Your task to perform on an android device: Show me recent news Image 0: 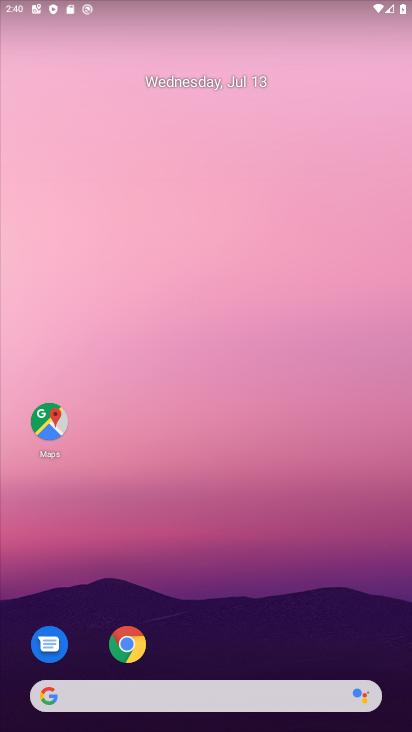
Step 0: drag from (275, 626) to (285, 128)
Your task to perform on an android device: Show me recent news Image 1: 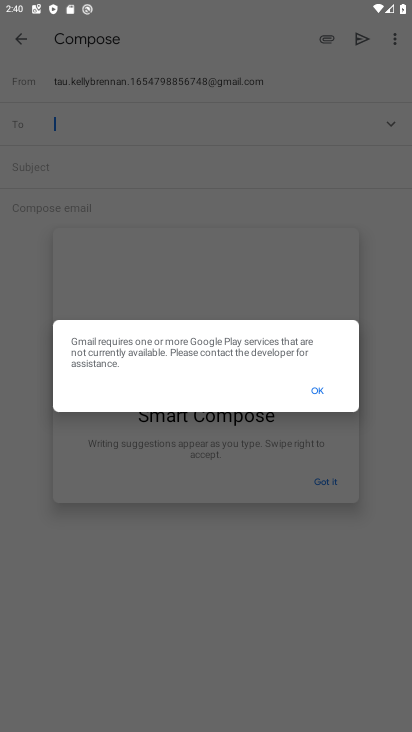
Step 1: click (367, 122)
Your task to perform on an android device: Show me recent news Image 2: 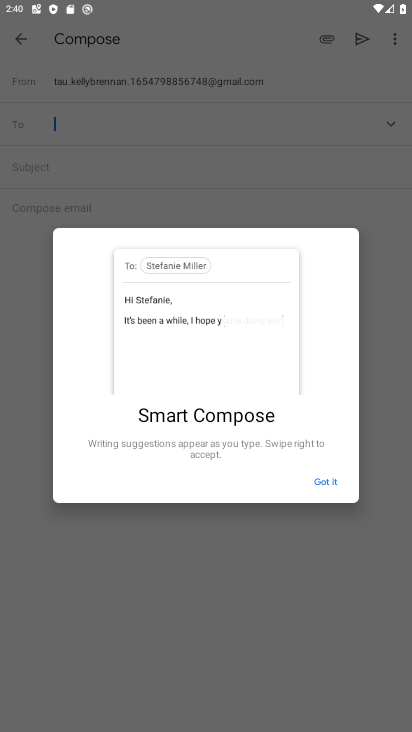
Step 2: press home button
Your task to perform on an android device: Show me recent news Image 3: 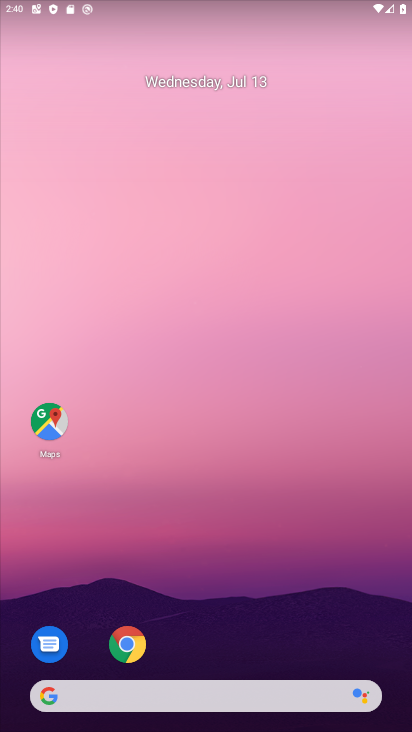
Step 3: drag from (263, 499) to (280, 105)
Your task to perform on an android device: Show me recent news Image 4: 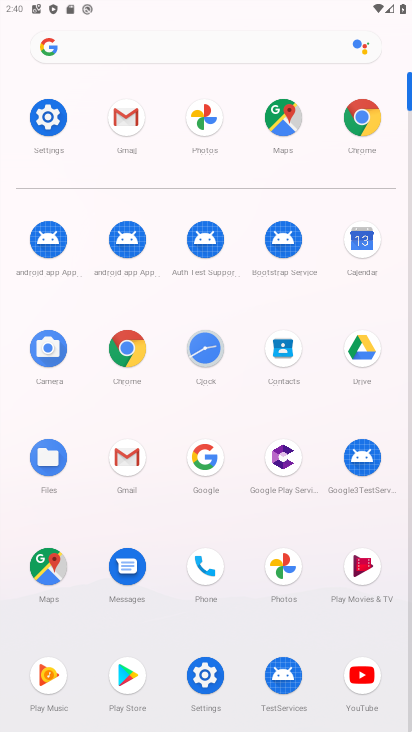
Step 4: click (370, 123)
Your task to perform on an android device: Show me recent news Image 5: 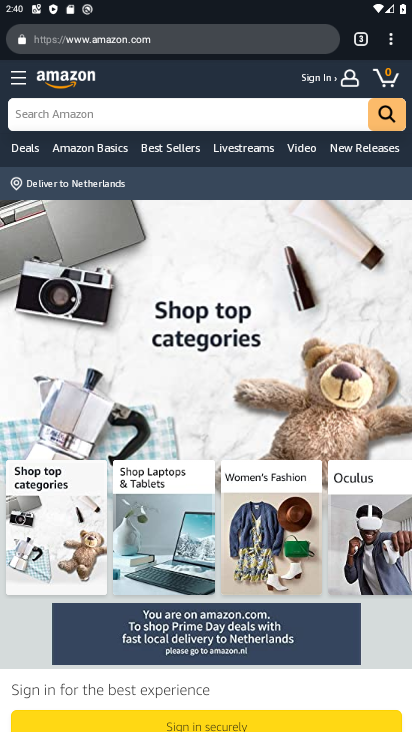
Step 5: click (230, 46)
Your task to perform on an android device: Show me recent news Image 6: 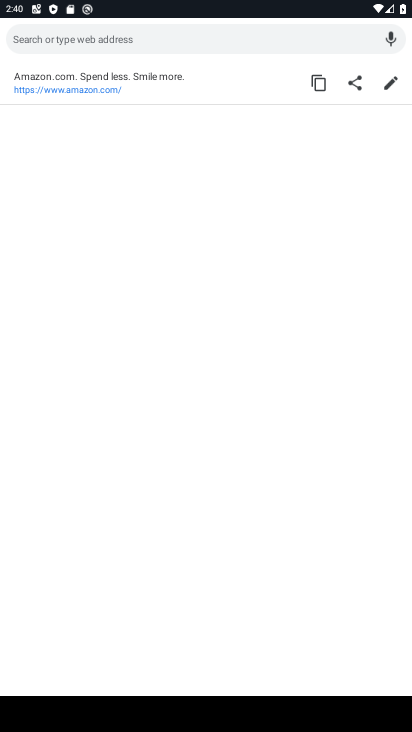
Step 6: type "news"
Your task to perform on an android device: Show me recent news Image 7: 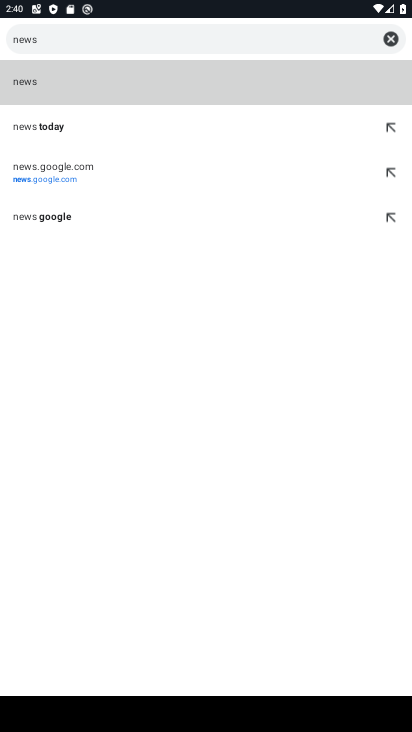
Step 7: click (32, 81)
Your task to perform on an android device: Show me recent news Image 8: 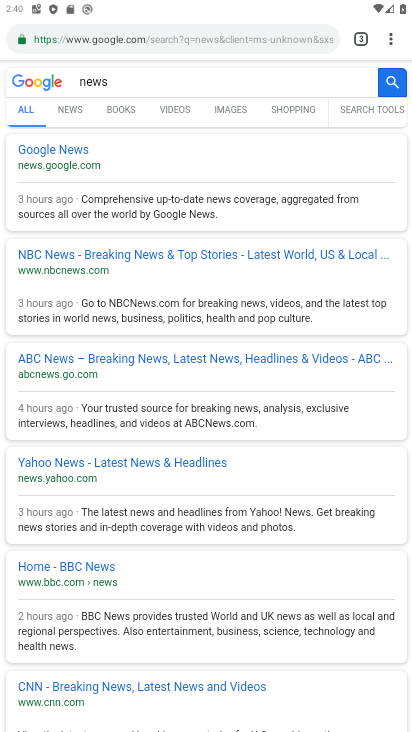
Step 8: click (66, 148)
Your task to perform on an android device: Show me recent news Image 9: 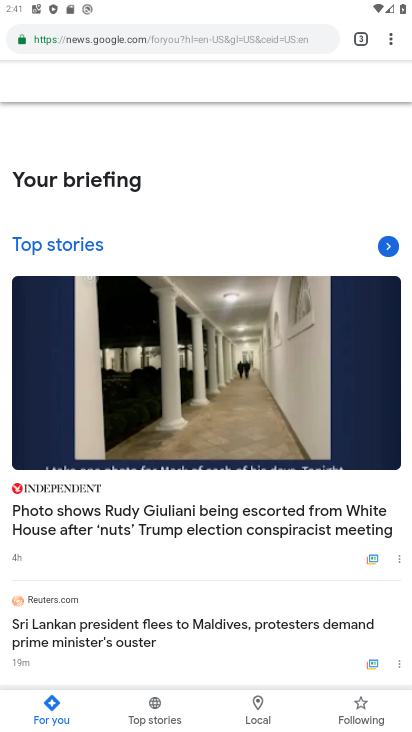
Step 9: task complete